Your task to perform on an android device: Go to privacy settings Image 0: 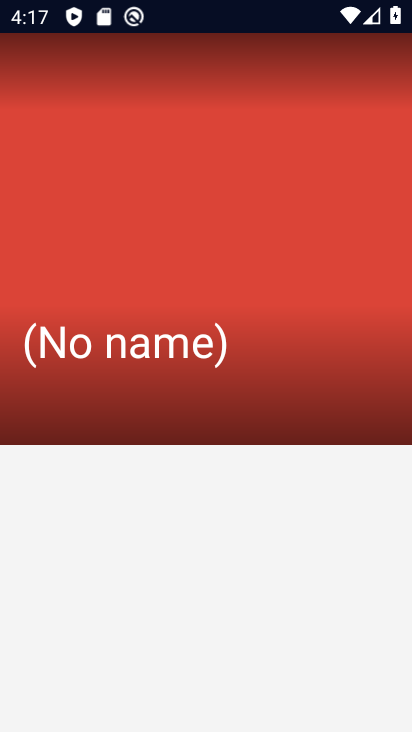
Step 0: press back button
Your task to perform on an android device: Go to privacy settings Image 1: 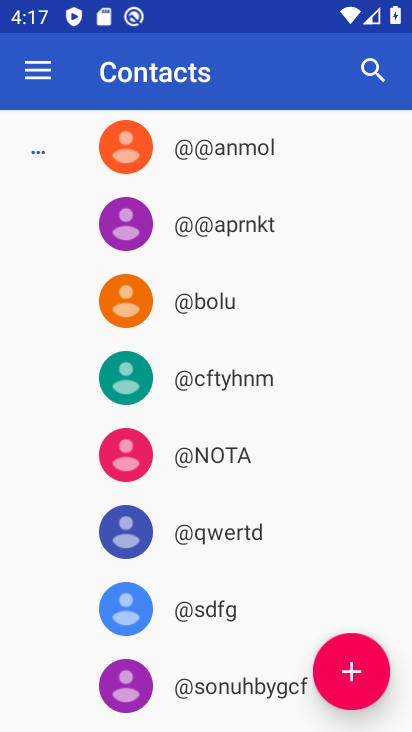
Step 1: press home button
Your task to perform on an android device: Go to privacy settings Image 2: 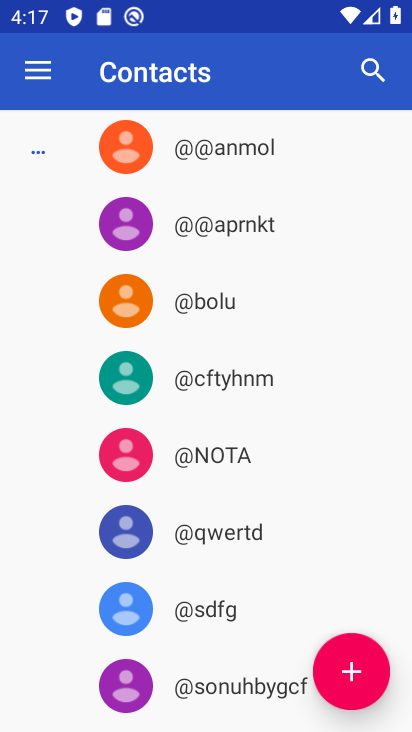
Step 2: press home button
Your task to perform on an android device: Go to privacy settings Image 3: 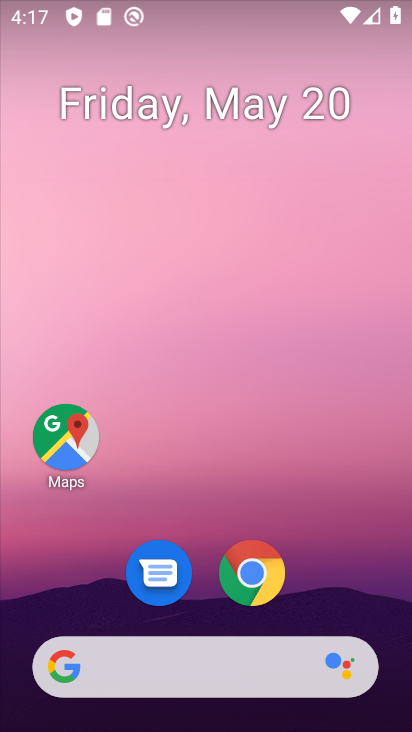
Step 3: drag from (305, 664) to (277, 128)
Your task to perform on an android device: Go to privacy settings Image 4: 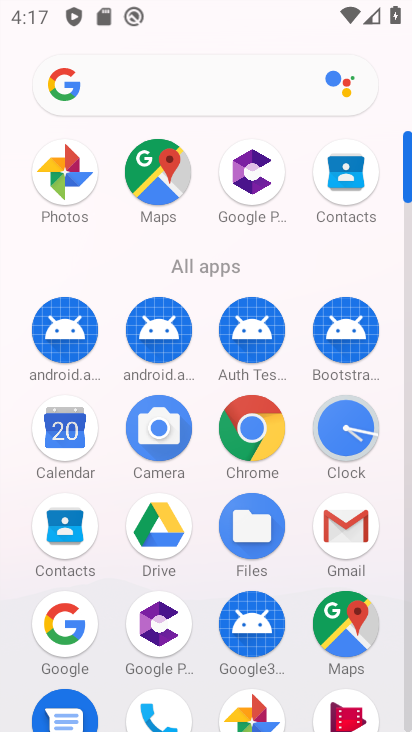
Step 4: drag from (279, 533) to (300, 152)
Your task to perform on an android device: Go to privacy settings Image 5: 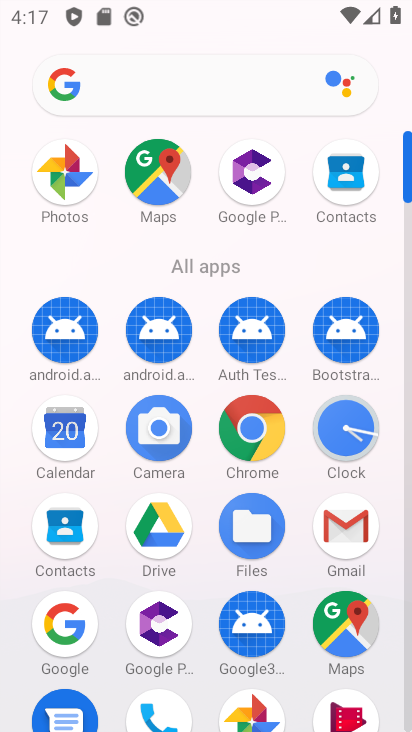
Step 5: drag from (330, 408) to (285, 85)
Your task to perform on an android device: Go to privacy settings Image 6: 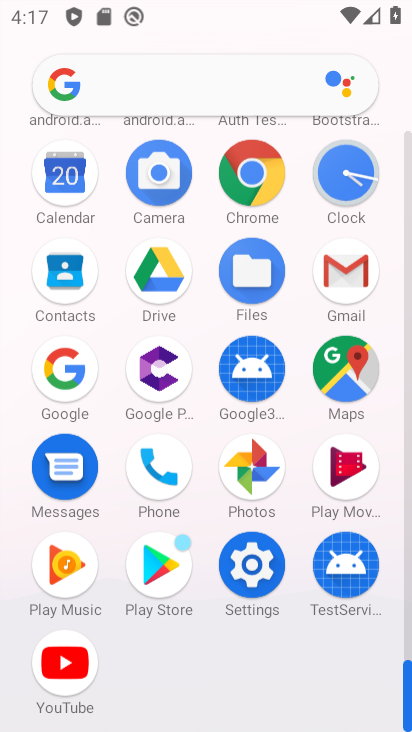
Step 6: drag from (267, 457) to (236, 154)
Your task to perform on an android device: Go to privacy settings Image 7: 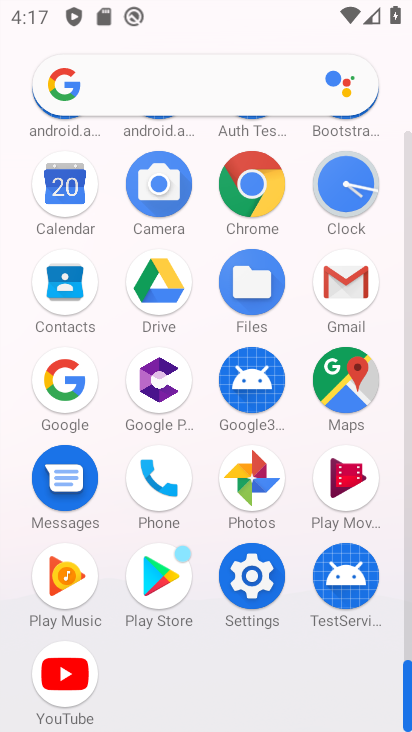
Step 7: click (259, 584)
Your task to perform on an android device: Go to privacy settings Image 8: 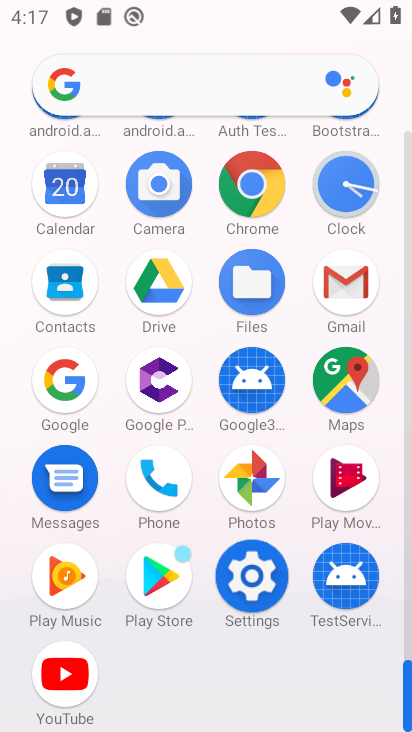
Step 8: click (258, 584)
Your task to perform on an android device: Go to privacy settings Image 9: 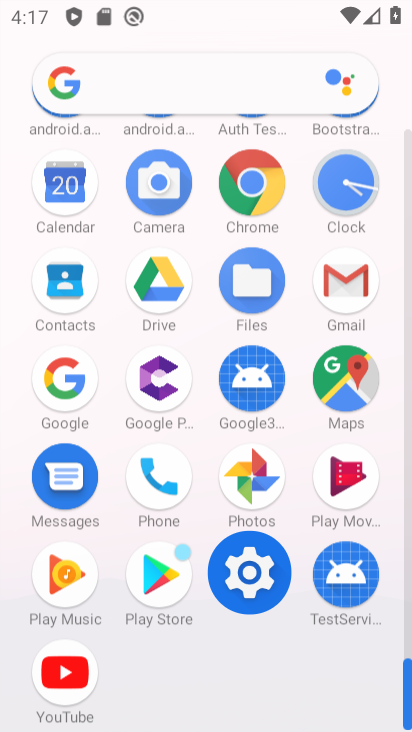
Step 9: click (259, 581)
Your task to perform on an android device: Go to privacy settings Image 10: 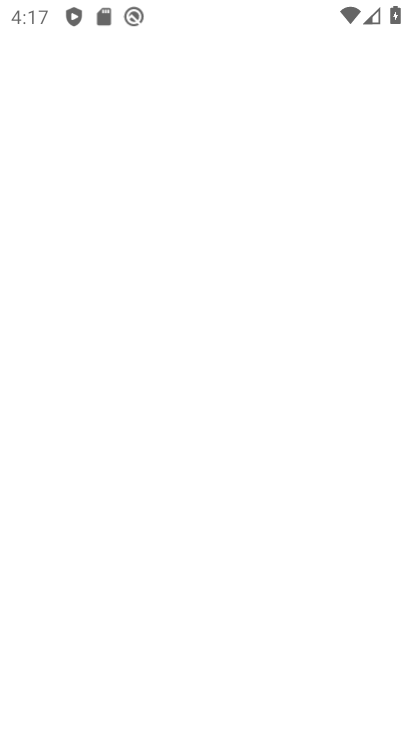
Step 10: click (249, 571)
Your task to perform on an android device: Go to privacy settings Image 11: 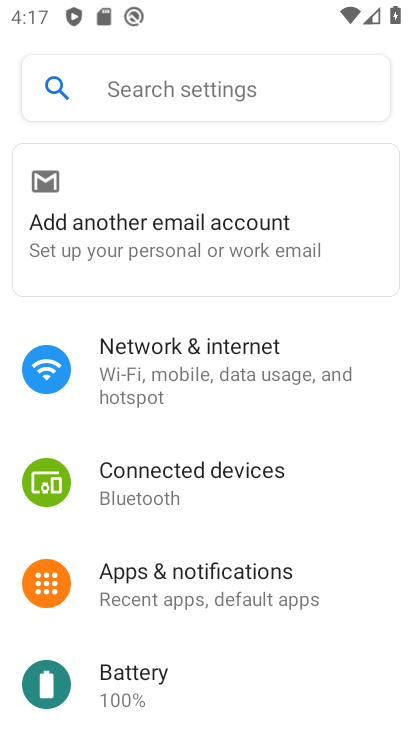
Step 11: drag from (198, 594) to (235, 289)
Your task to perform on an android device: Go to privacy settings Image 12: 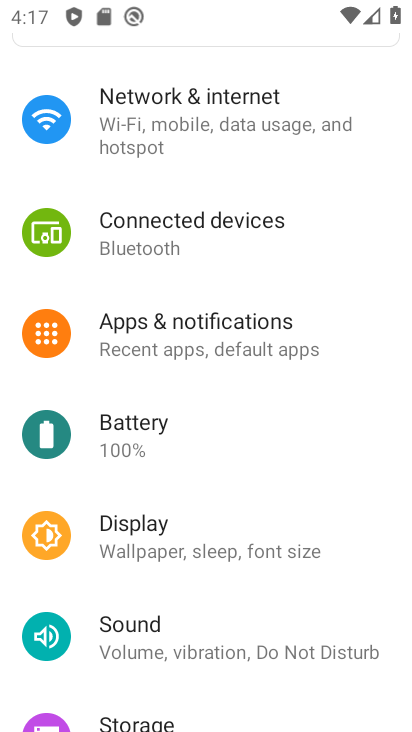
Step 12: drag from (250, 530) to (185, 241)
Your task to perform on an android device: Go to privacy settings Image 13: 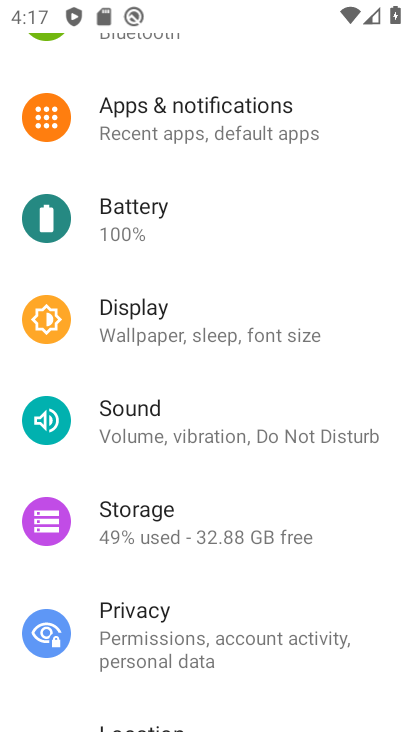
Step 13: drag from (217, 563) to (221, 169)
Your task to perform on an android device: Go to privacy settings Image 14: 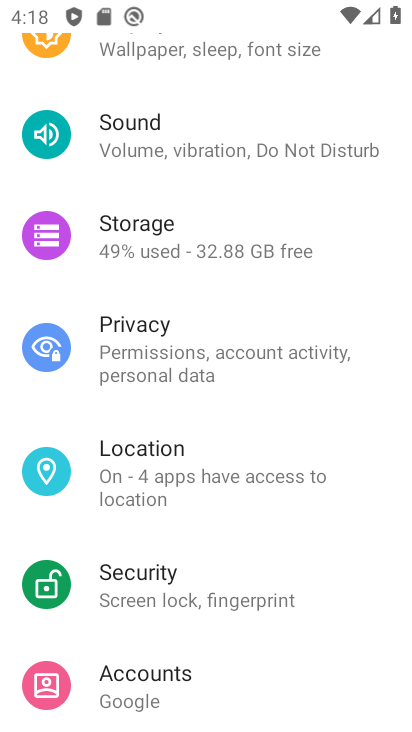
Step 14: click (148, 353)
Your task to perform on an android device: Go to privacy settings Image 15: 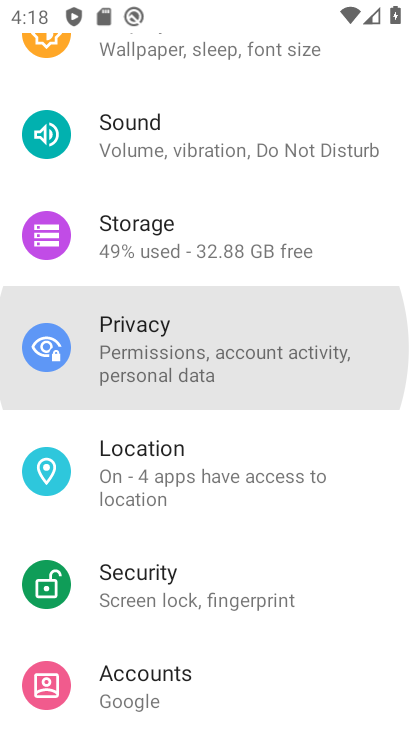
Step 15: click (149, 352)
Your task to perform on an android device: Go to privacy settings Image 16: 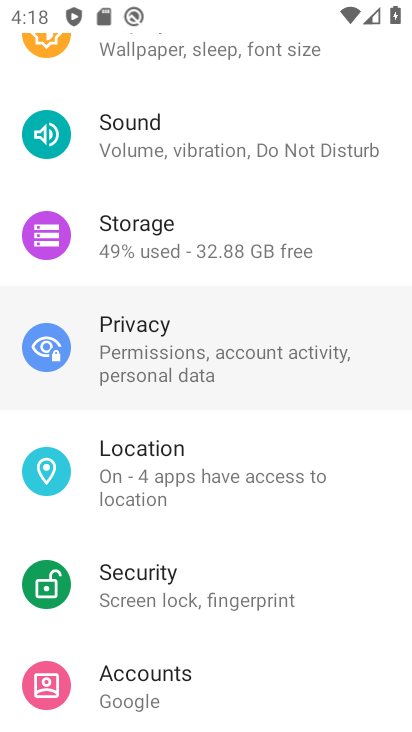
Step 16: click (149, 352)
Your task to perform on an android device: Go to privacy settings Image 17: 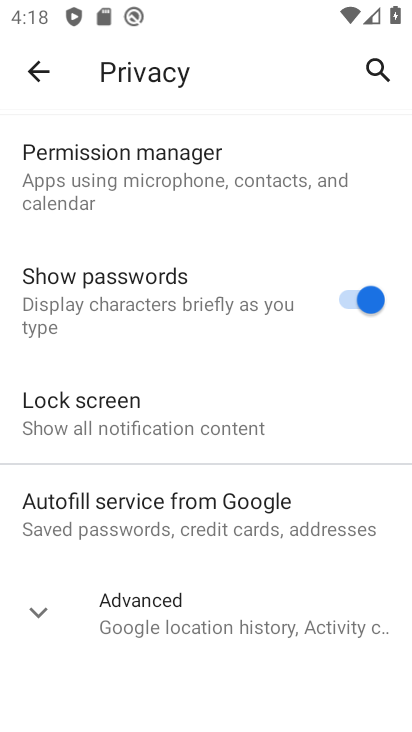
Step 17: task complete